Your task to perform on an android device: Go to Yahoo.com Image 0: 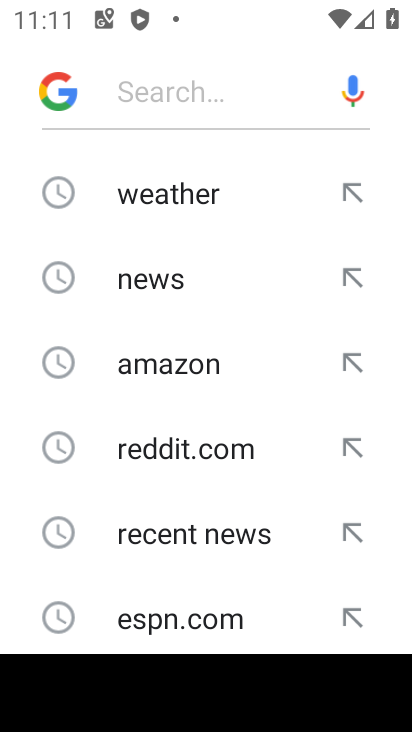
Step 0: press home button
Your task to perform on an android device: Go to Yahoo.com Image 1: 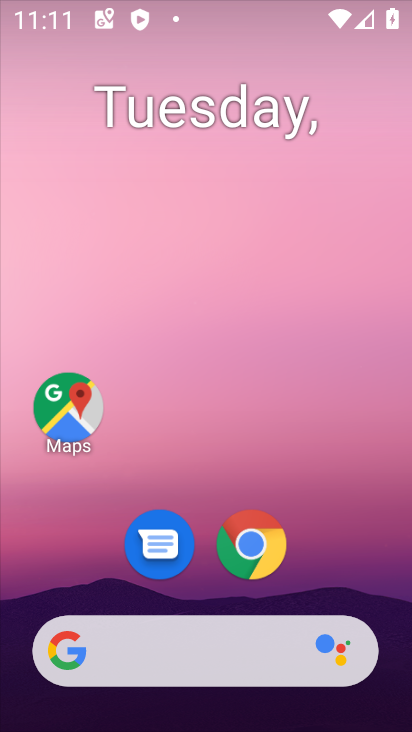
Step 1: drag from (389, 632) to (281, 102)
Your task to perform on an android device: Go to Yahoo.com Image 2: 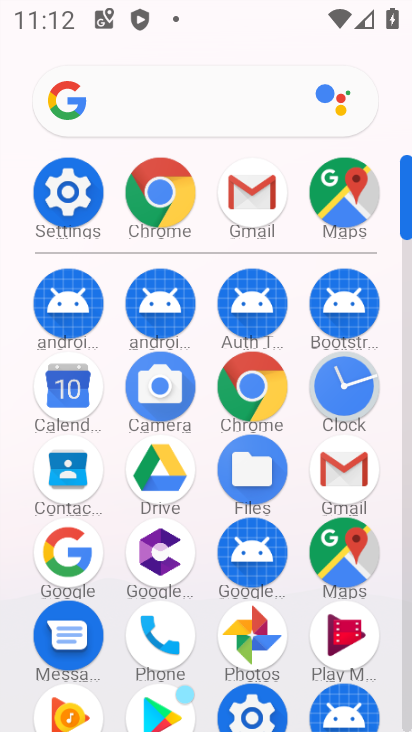
Step 2: click (183, 202)
Your task to perform on an android device: Go to Yahoo.com Image 3: 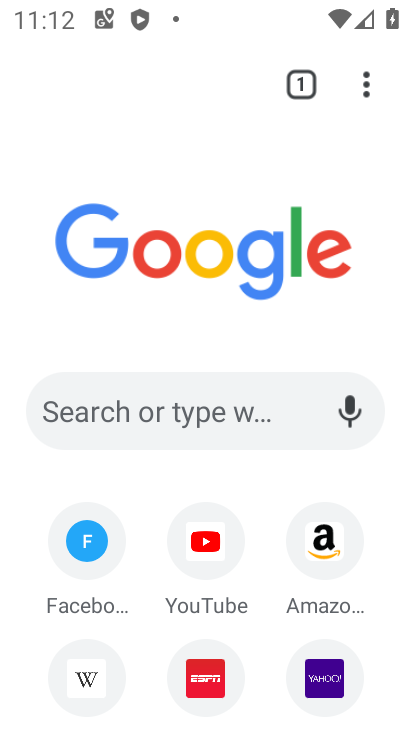
Step 3: click (330, 682)
Your task to perform on an android device: Go to Yahoo.com Image 4: 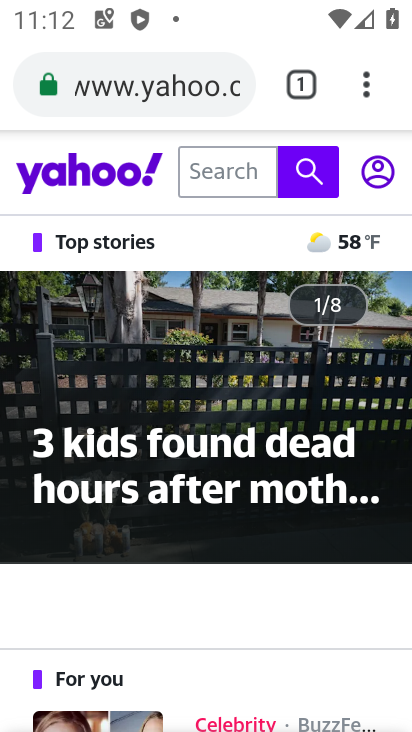
Step 4: task complete